Your task to perform on an android device: Open settings on Google Maps Image 0: 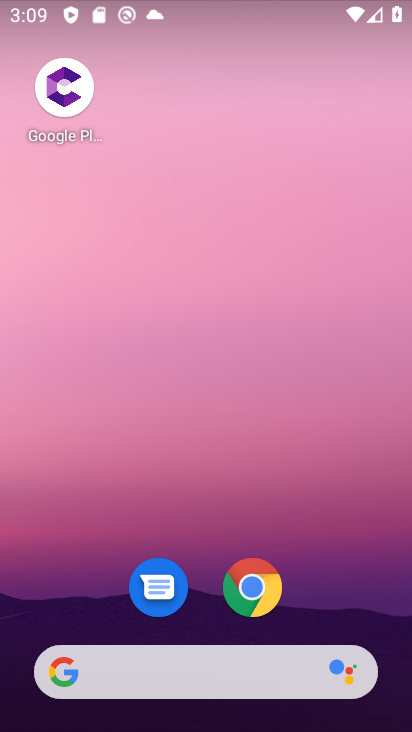
Step 0: drag from (23, 659) to (159, 165)
Your task to perform on an android device: Open settings on Google Maps Image 1: 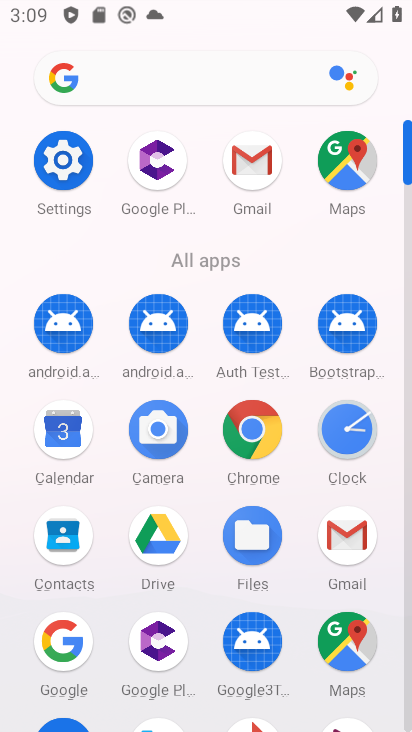
Step 1: click (336, 634)
Your task to perform on an android device: Open settings on Google Maps Image 2: 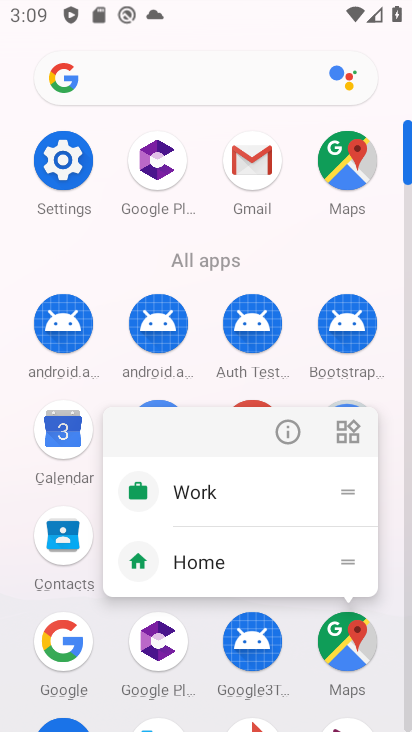
Step 2: click (335, 620)
Your task to perform on an android device: Open settings on Google Maps Image 3: 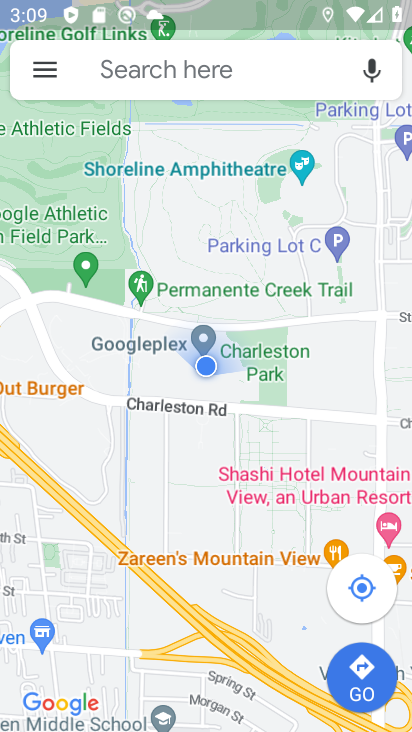
Step 3: click (42, 82)
Your task to perform on an android device: Open settings on Google Maps Image 4: 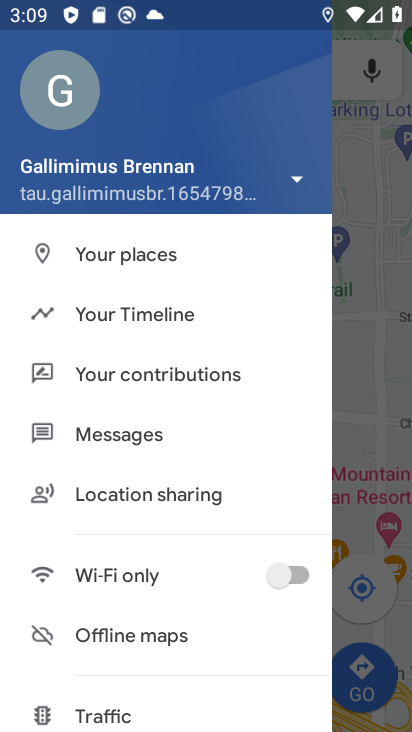
Step 4: drag from (132, 675) to (156, 407)
Your task to perform on an android device: Open settings on Google Maps Image 5: 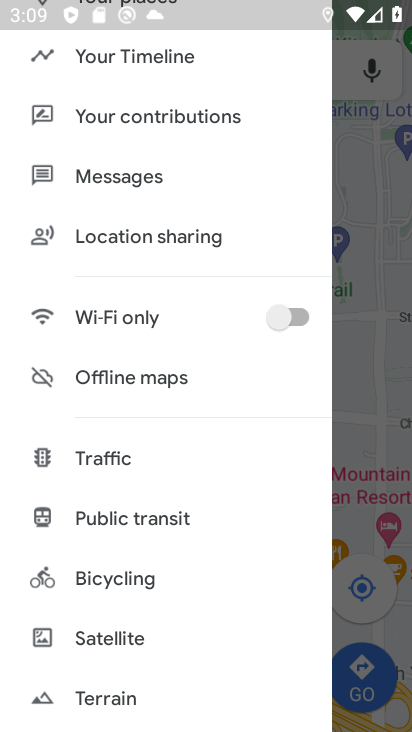
Step 5: drag from (149, 693) to (271, 220)
Your task to perform on an android device: Open settings on Google Maps Image 6: 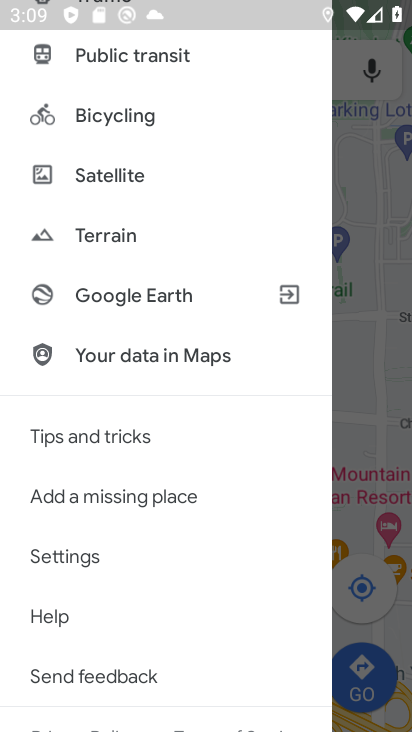
Step 6: click (75, 555)
Your task to perform on an android device: Open settings on Google Maps Image 7: 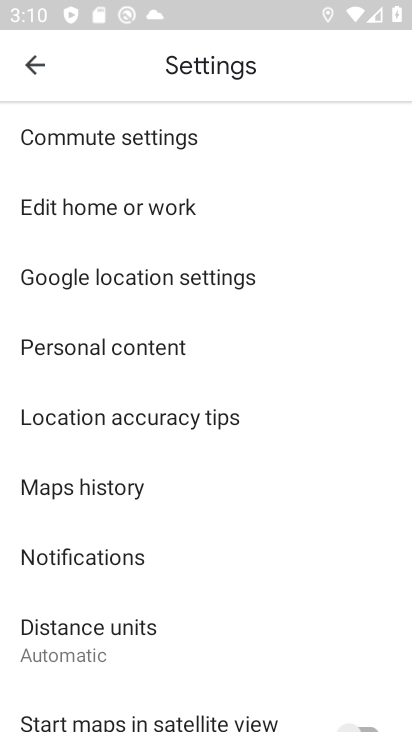
Step 7: task complete